Your task to perform on an android device: turn off javascript in the chrome app Image 0: 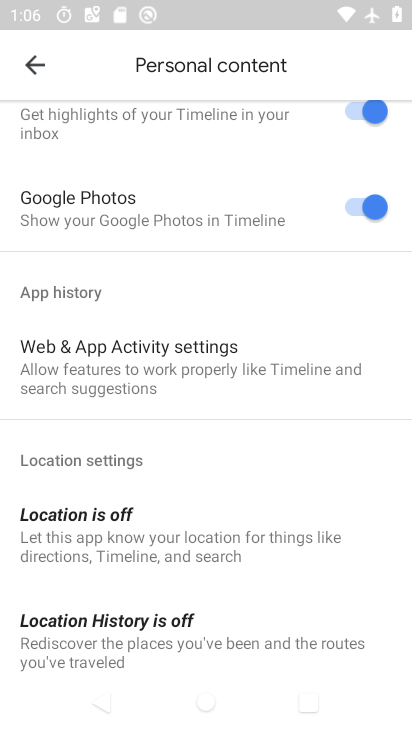
Step 0: press home button
Your task to perform on an android device: turn off javascript in the chrome app Image 1: 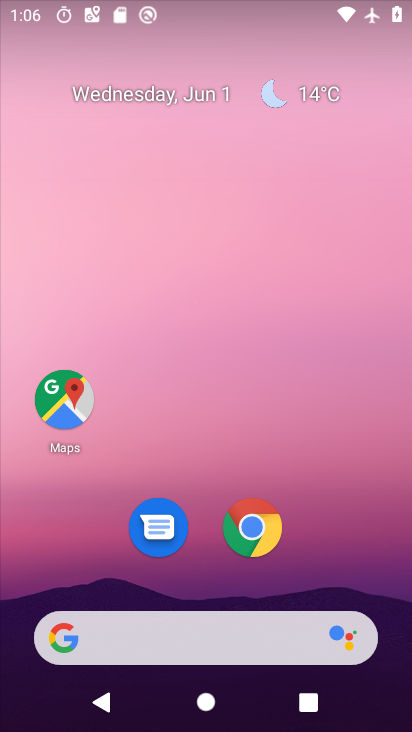
Step 1: click (251, 533)
Your task to perform on an android device: turn off javascript in the chrome app Image 2: 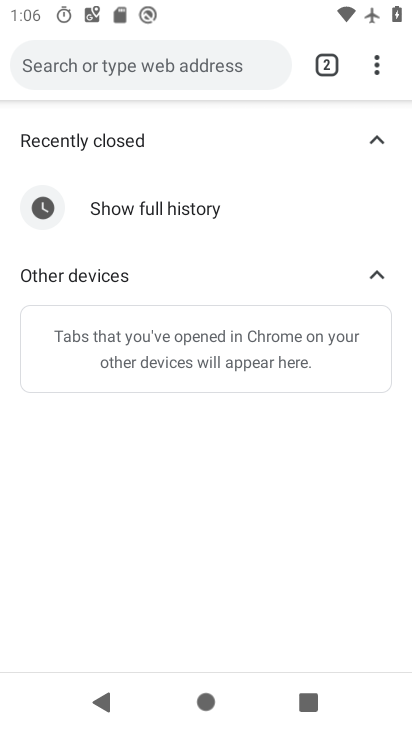
Step 2: click (380, 66)
Your task to perform on an android device: turn off javascript in the chrome app Image 3: 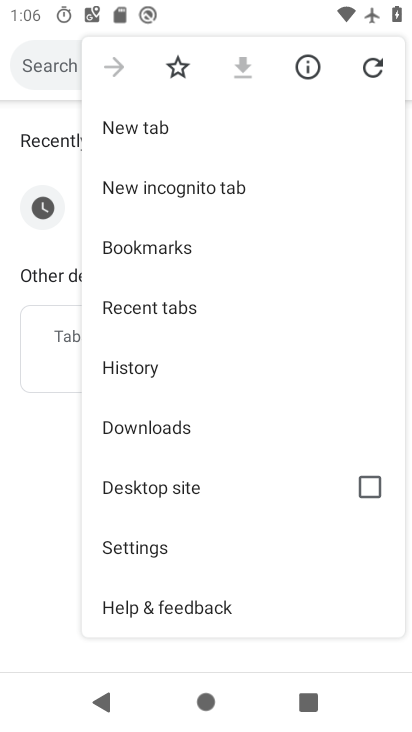
Step 3: drag from (210, 517) to (212, 254)
Your task to perform on an android device: turn off javascript in the chrome app Image 4: 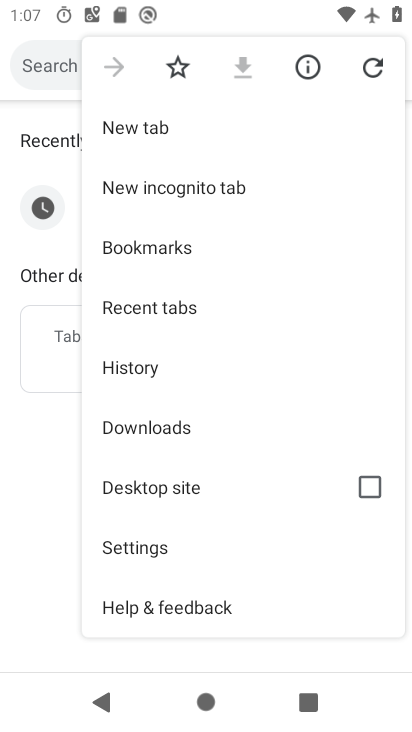
Step 4: click (142, 551)
Your task to perform on an android device: turn off javascript in the chrome app Image 5: 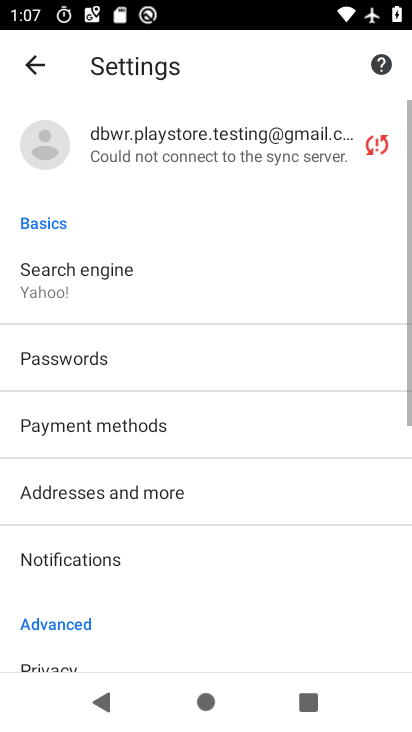
Step 5: drag from (200, 525) to (212, 215)
Your task to perform on an android device: turn off javascript in the chrome app Image 6: 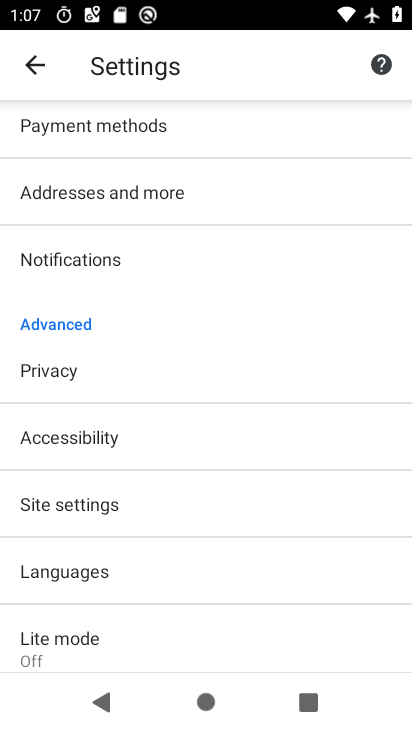
Step 6: click (76, 510)
Your task to perform on an android device: turn off javascript in the chrome app Image 7: 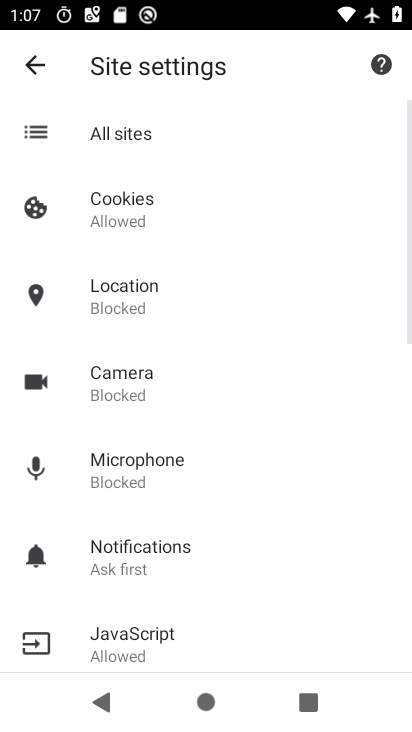
Step 7: click (143, 639)
Your task to perform on an android device: turn off javascript in the chrome app Image 8: 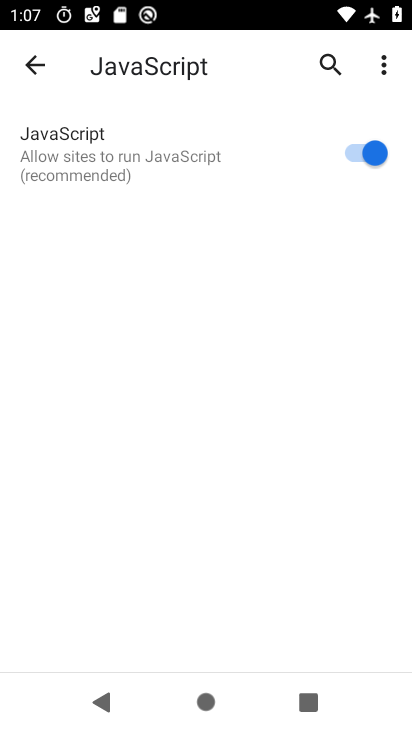
Step 8: click (368, 150)
Your task to perform on an android device: turn off javascript in the chrome app Image 9: 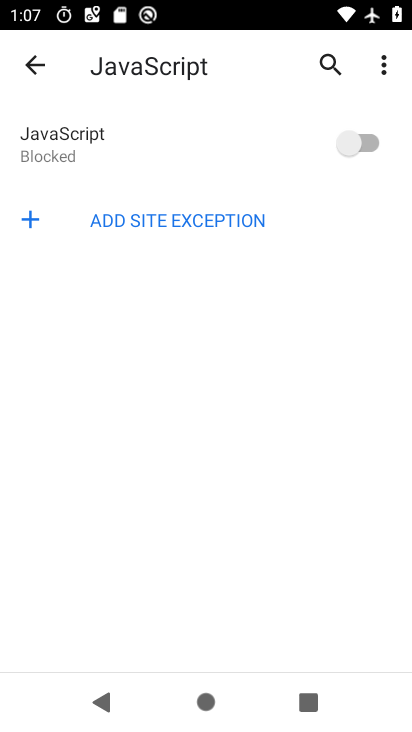
Step 9: task complete